Your task to perform on an android device: Open the calendar and show me this week's events? Image 0: 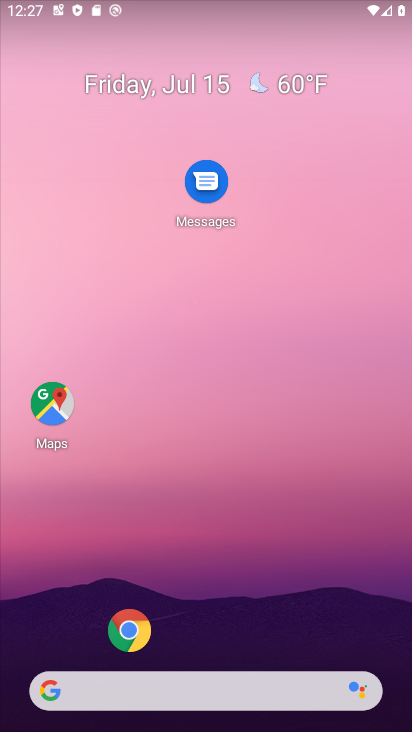
Step 0: drag from (7, 694) to (228, 126)
Your task to perform on an android device: Open the calendar and show me this week's events? Image 1: 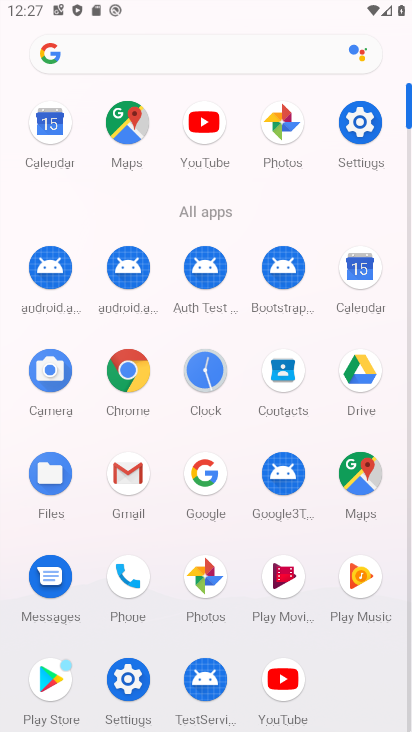
Step 1: click (348, 275)
Your task to perform on an android device: Open the calendar and show me this week's events? Image 2: 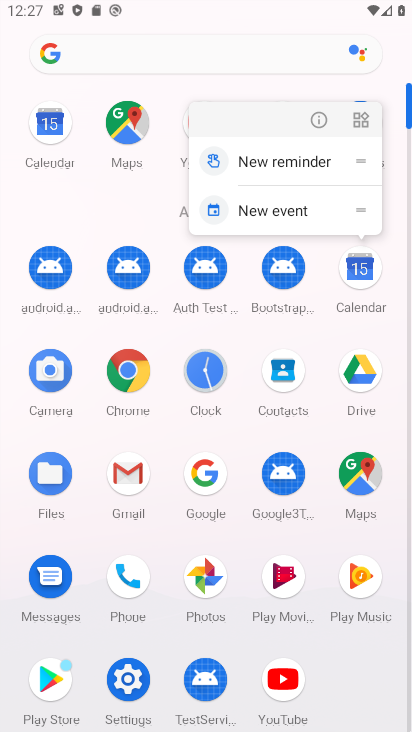
Step 2: click (359, 286)
Your task to perform on an android device: Open the calendar and show me this week's events? Image 3: 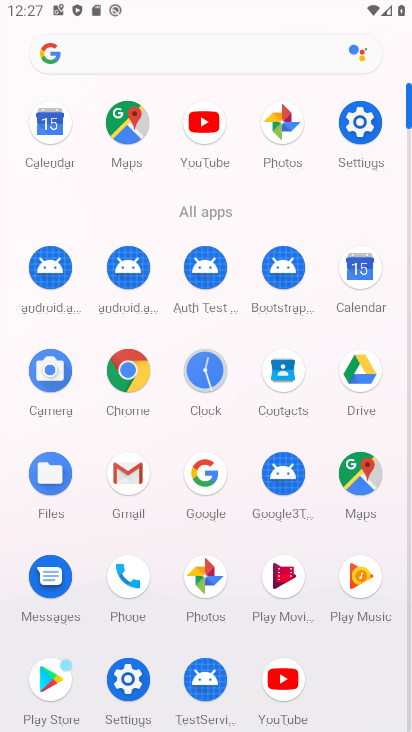
Step 3: click (359, 286)
Your task to perform on an android device: Open the calendar and show me this week's events? Image 4: 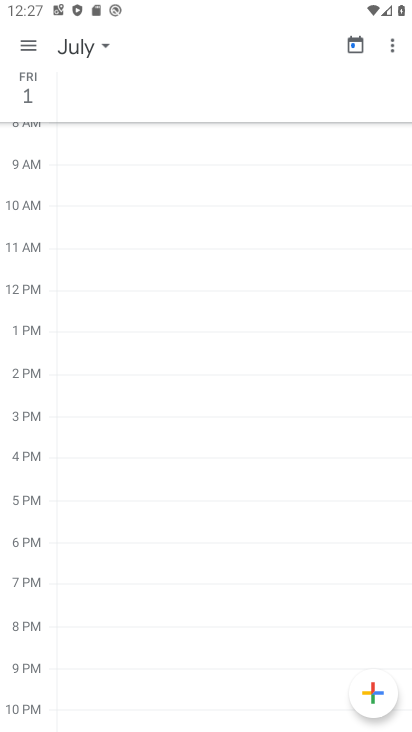
Step 4: click (35, 48)
Your task to perform on an android device: Open the calendar and show me this week's events? Image 5: 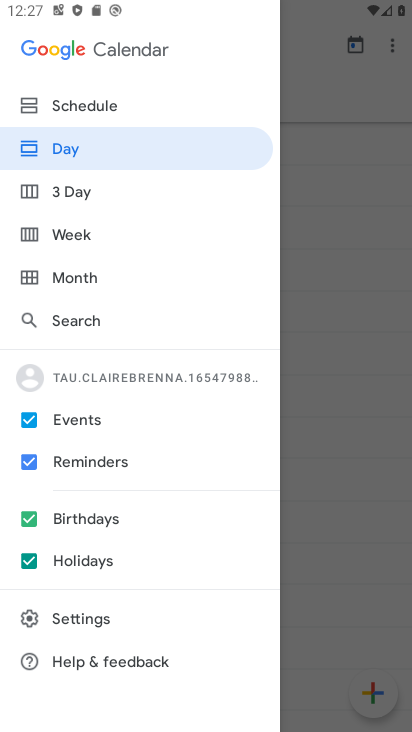
Step 5: click (321, 91)
Your task to perform on an android device: Open the calendar and show me this week's events? Image 6: 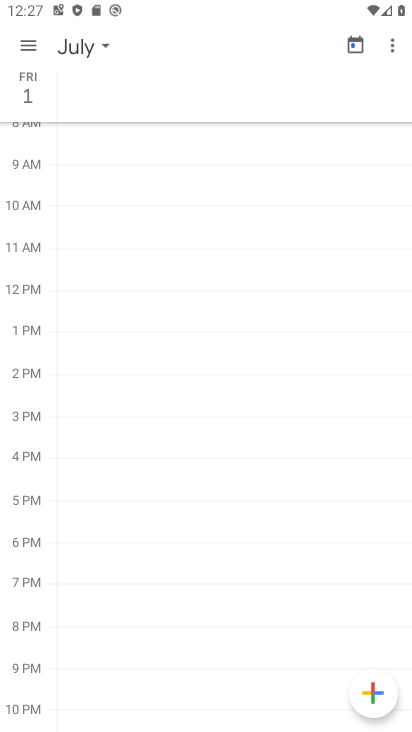
Step 6: click (94, 49)
Your task to perform on an android device: Open the calendar and show me this week's events? Image 7: 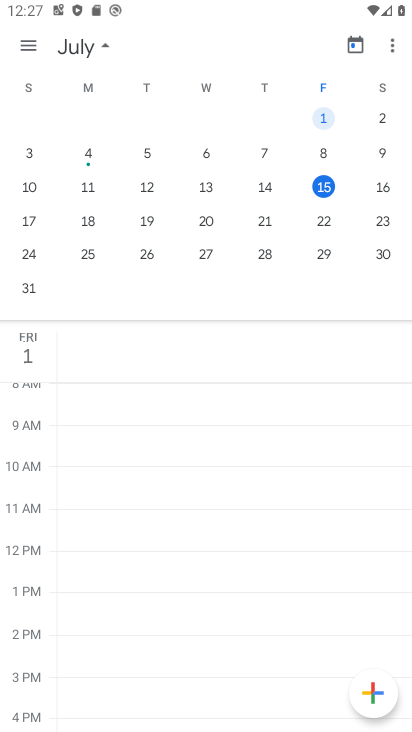
Step 7: task complete